Your task to perform on an android device: open chrome and create a bookmark for the current page Image 0: 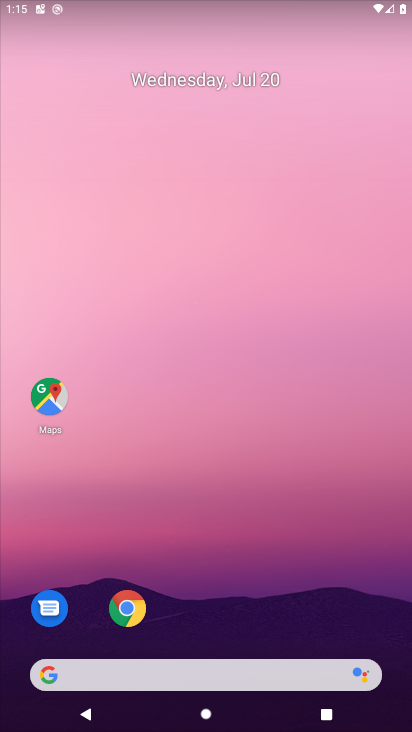
Step 0: press home button
Your task to perform on an android device: open chrome and create a bookmark for the current page Image 1: 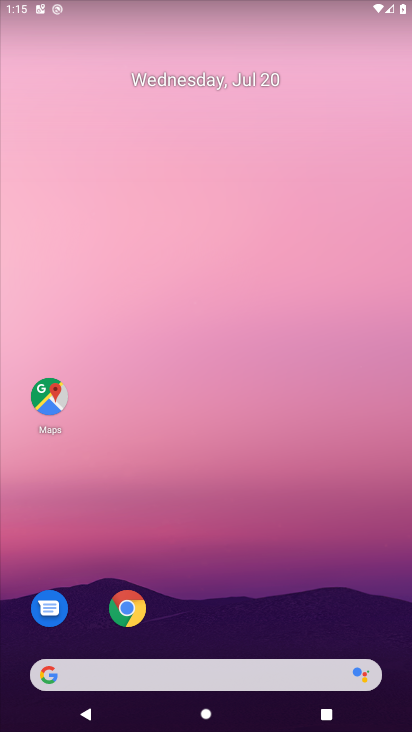
Step 1: click (127, 603)
Your task to perform on an android device: open chrome and create a bookmark for the current page Image 2: 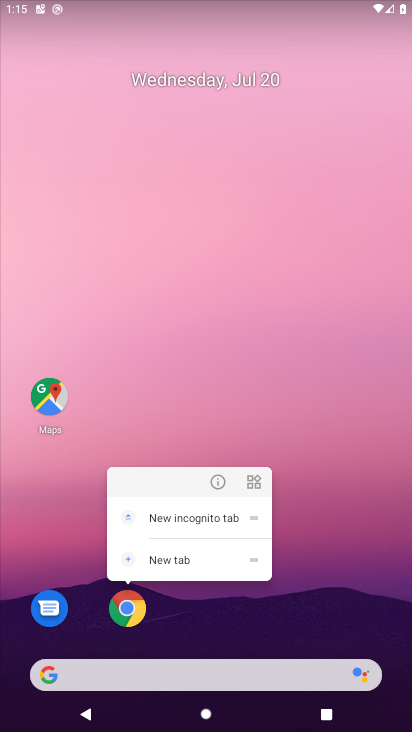
Step 2: click (128, 611)
Your task to perform on an android device: open chrome and create a bookmark for the current page Image 3: 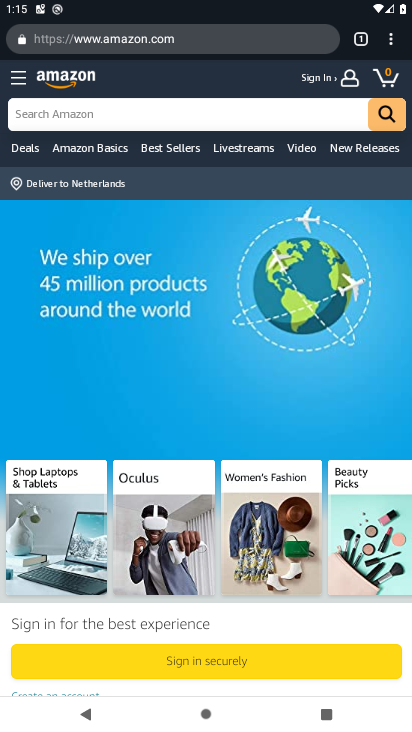
Step 3: click (384, 47)
Your task to perform on an android device: open chrome and create a bookmark for the current page Image 4: 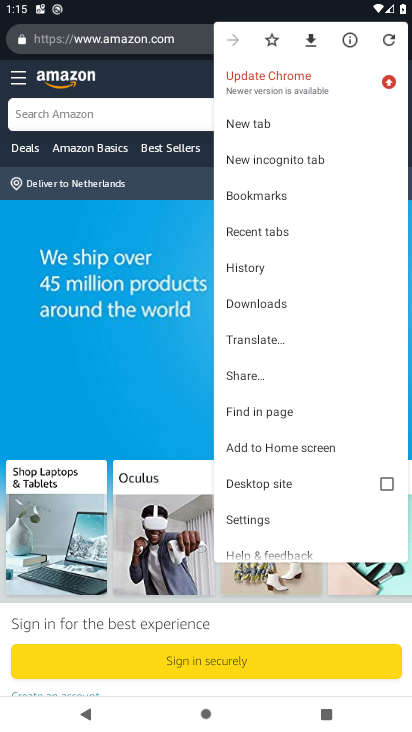
Step 4: click (271, 34)
Your task to perform on an android device: open chrome and create a bookmark for the current page Image 5: 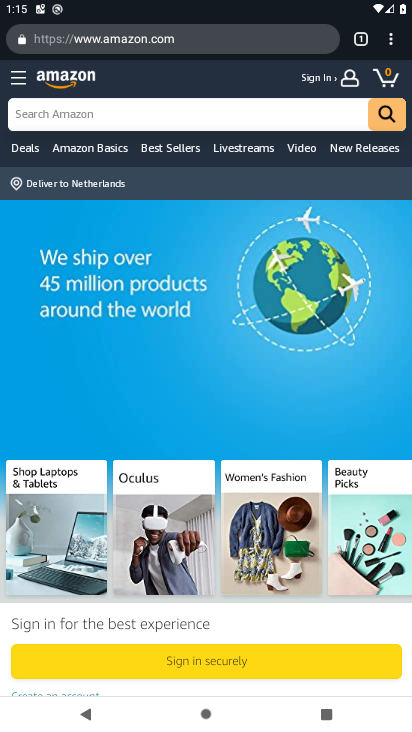
Step 5: task complete